Your task to perform on an android device: Is it going to rain this weekend? Image 0: 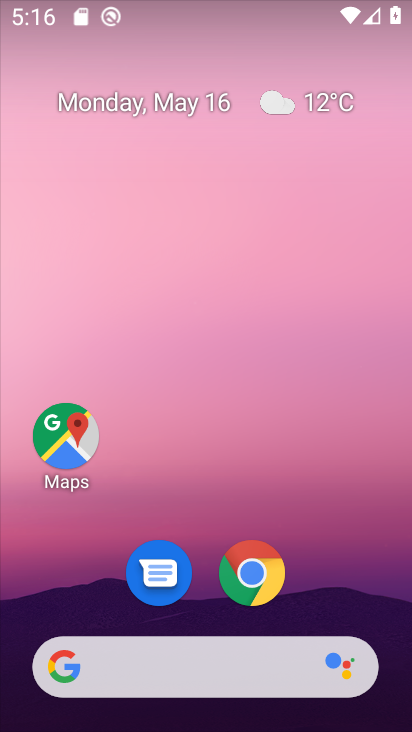
Step 0: drag from (195, 598) to (238, 668)
Your task to perform on an android device: Is it going to rain this weekend? Image 1: 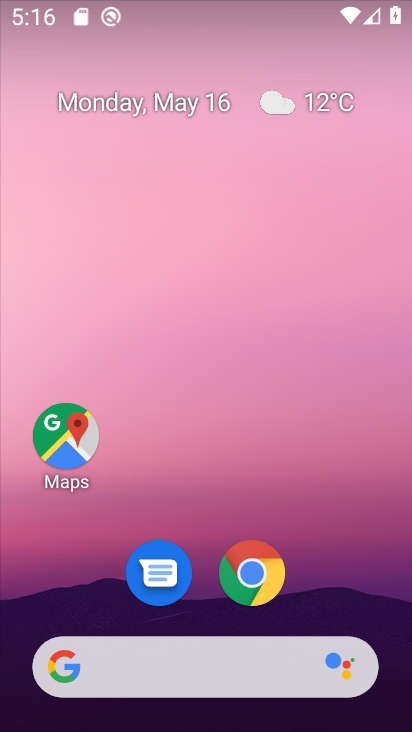
Step 1: click (293, 98)
Your task to perform on an android device: Is it going to rain this weekend? Image 2: 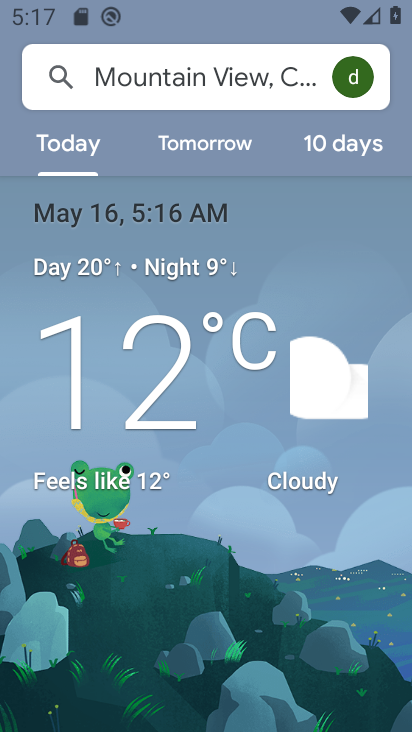
Step 2: click (340, 142)
Your task to perform on an android device: Is it going to rain this weekend? Image 3: 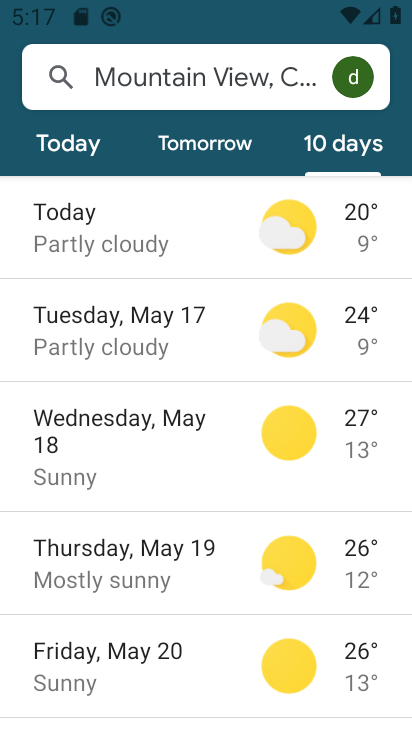
Step 3: task complete